Your task to perform on an android device: Turn on the flashlight Image 0: 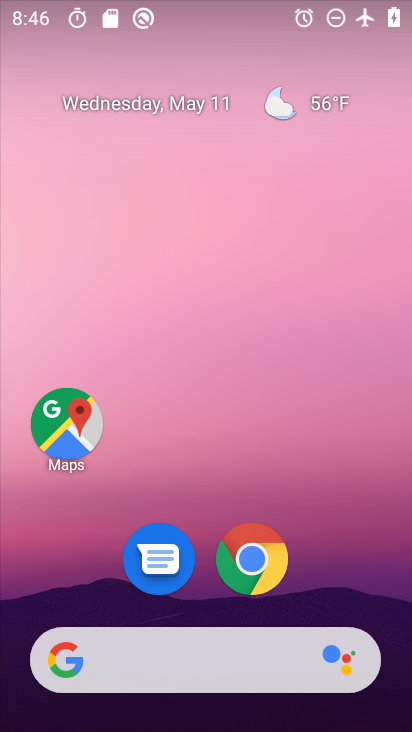
Step 0: drag from (317, 490) to (321, 11)
Your task to perform on an android device: Turn on the flashlight Image 1: 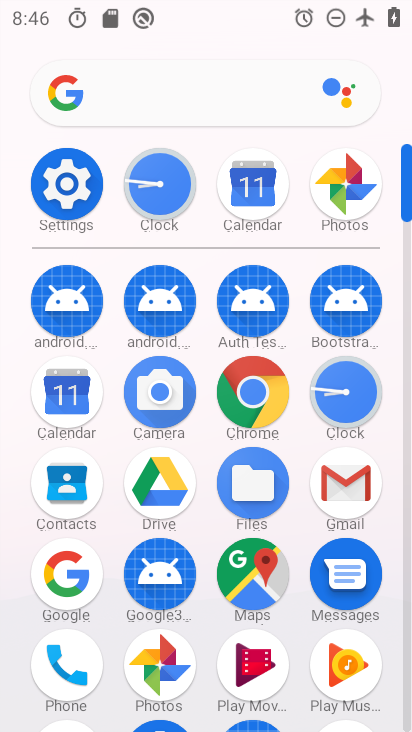
Step 1: click (77, 200)
Your task to perform on an android device: Turn on the flashlight Image 2: 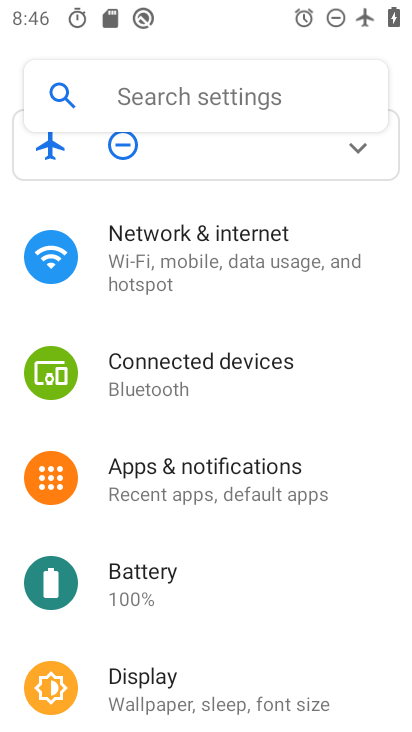
Step 2: task complete